Your task to perform on an android device: open a bookmark in the chrome app Image 0: 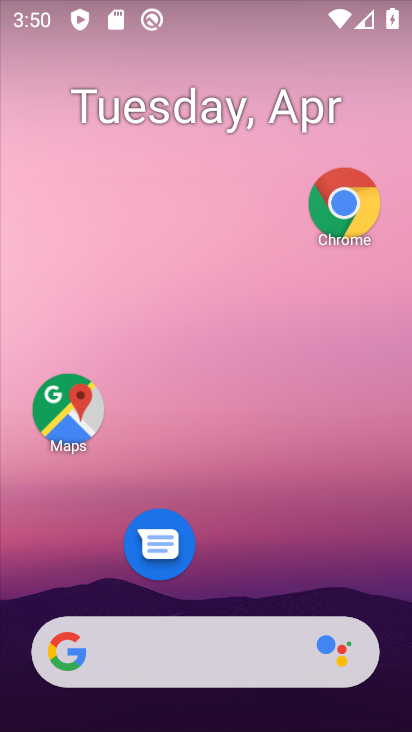
Step 0: click (350, 219)
Your task to perform on an android device: open a bookmark in the chrome app Image 1: 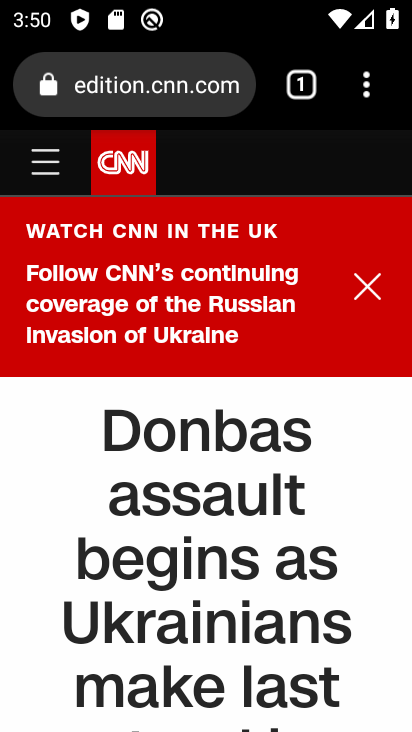
Step 1: click (363, 84)
Your task to perform on an android device: open a bookmark in the chrome app Image 2: 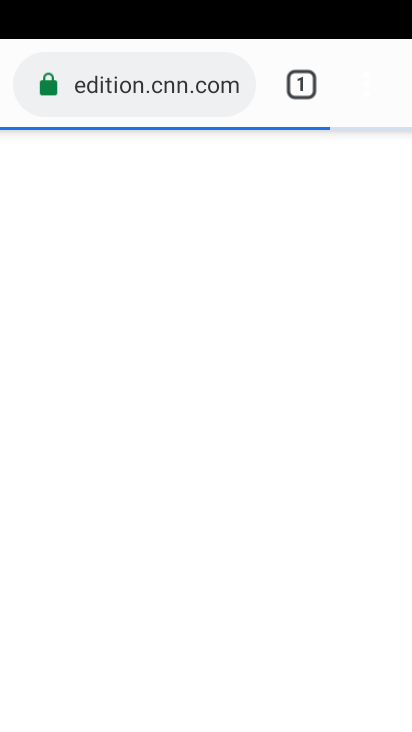
Step 2: click (364, 87)
Your task to perform on an android device: open a bookmark in the chrome app Image 3: 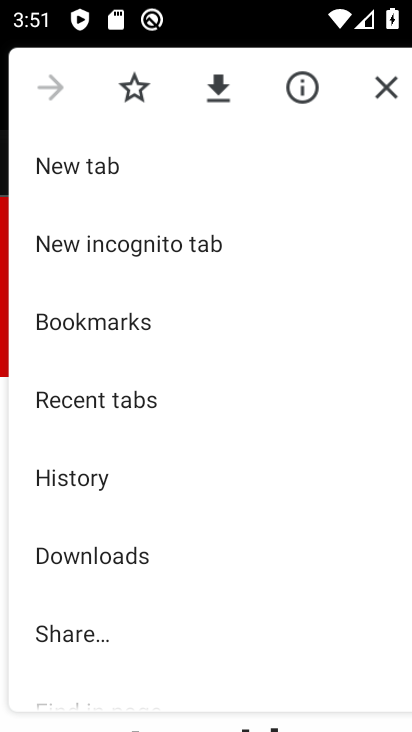
Step 3: click (114, 174)
Your task to perform on an android device: open a bookmark in the chrome app Image 4: 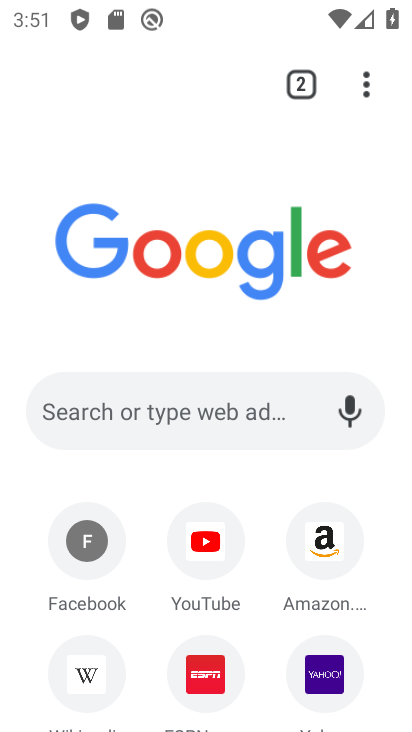
Step 4: click (80, 656)
Your task to perform on an android device: open a bookmark in the chrome app Image 5: 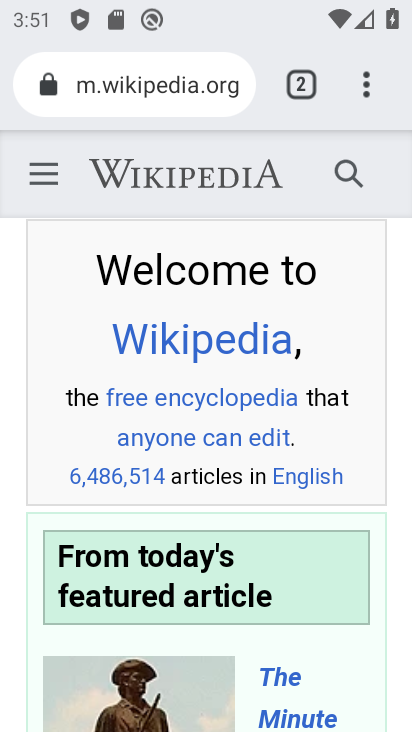
Step 5: task complete